Your task to perform on an android device: turn on improve location accuracy Image 0: 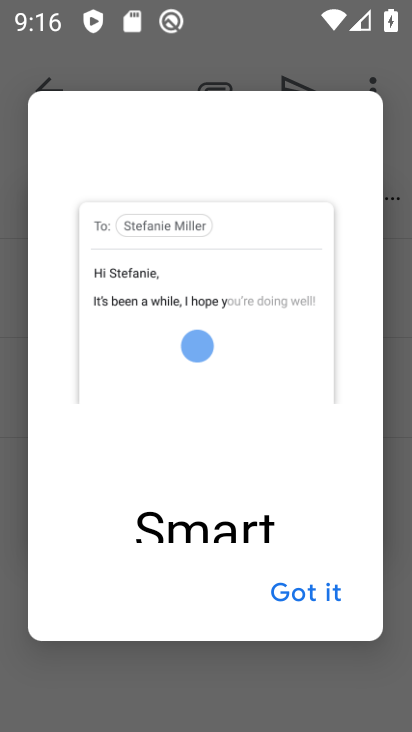
Step 0: press home button
Your task to perform on an android device: turn on improve location accuracy Image 1: 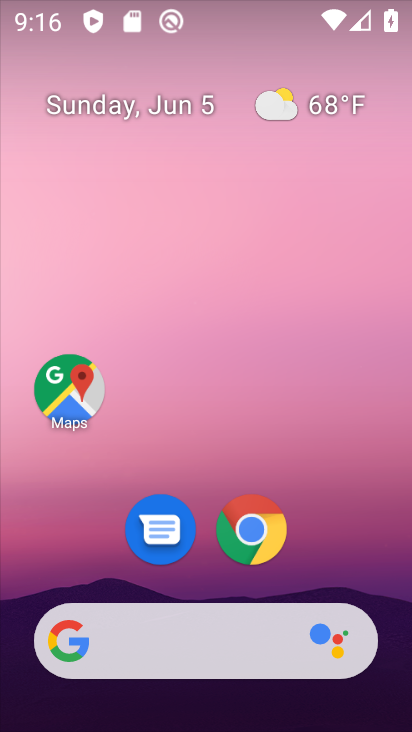
Step 1: drag from (223, 724) to (234, 47)
Your task to perform on an android device: turn on improve location accuracy Image 2: 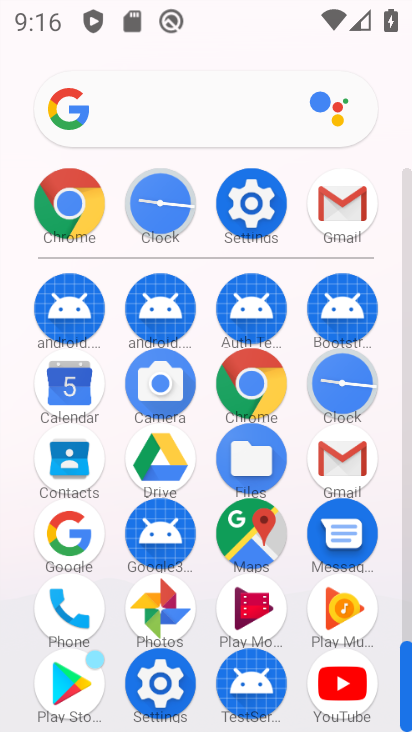
Step 2: click (242, 209)
Your task to perform on an android device: turn on improve location accuracy Image 3: 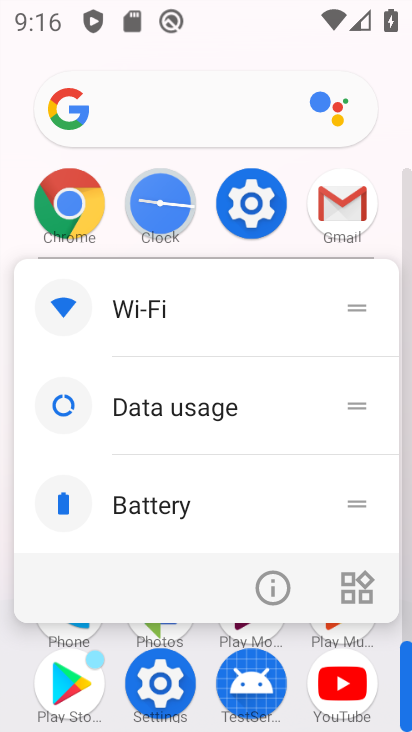
Step 3: click (258, 205)
Your task to perform on an android device: turn on improve location accuracy Image 4: 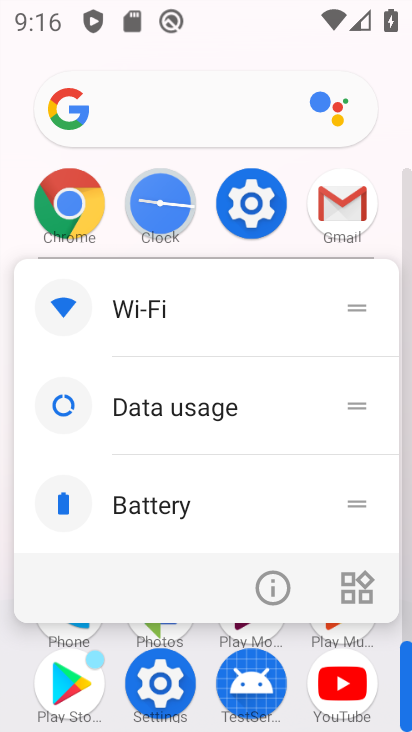
Step 4: click (259, 205)
Your task to perform on an android device: turn on improve location accuracy Image 5: 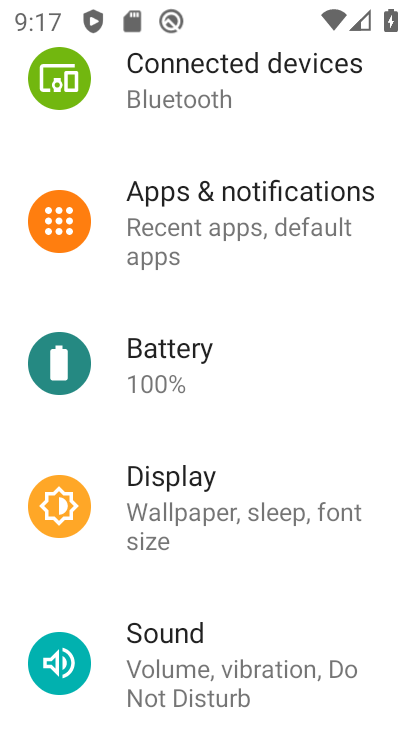
Step 5: drag from (268, 665) to (272, 56)
Your task to perform on an android device: turn on improve location accuracy Image 6: 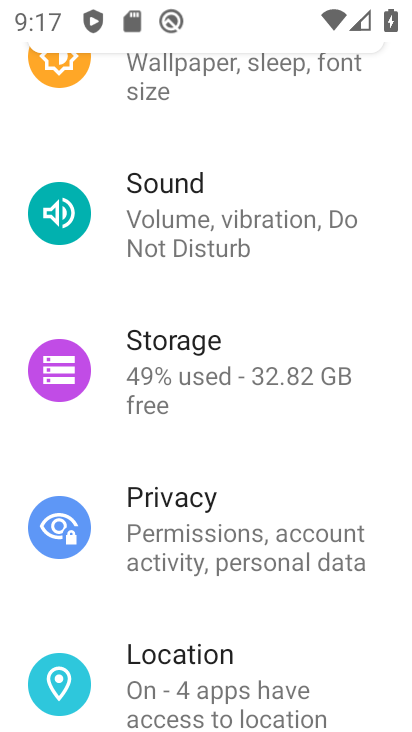
Step 6: click (222, 685)
Your task to perform on an android device: turn on improve location accuracy Image 7: 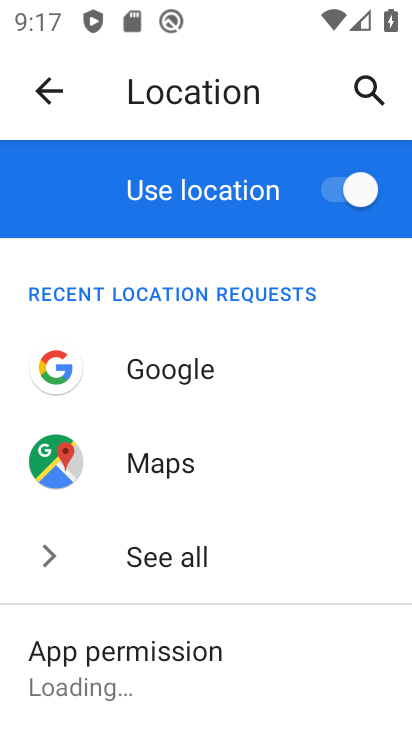
Step 7: drag from (258, 632) to (244, 13)
Your task to perform on an android device: turn on improve location accuracy Image 8: 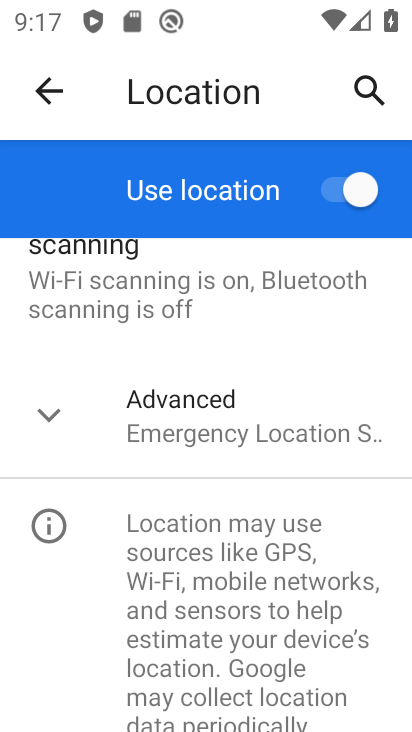
Step 8: click (301, 416)
Your task to perform on an android device: turn on improve location accuracy Image 9: 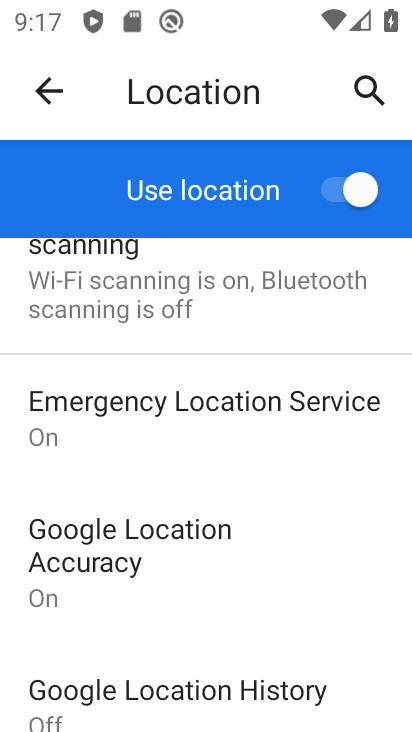
Step 9: click (254, 700)
Your task to perform on an android device: turn on improve location accuracy Image 10: 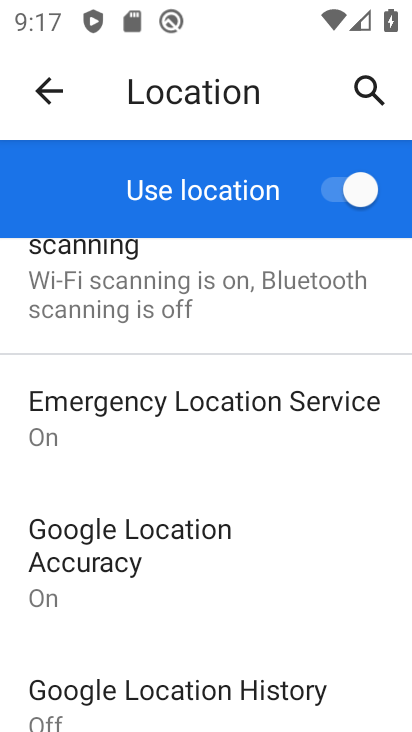
Step 10: click (162, 547)
Your task to perform on an android device: turn on improve location accuracy Image 11: 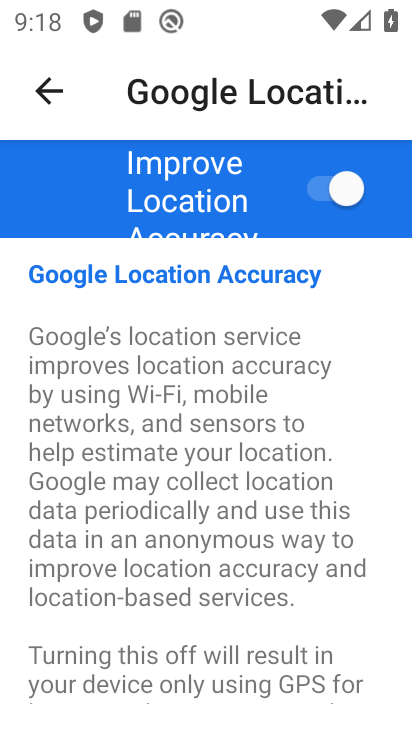
Step 11: task complete